Your task to perform on an android device: Open wifi settings Image 0: 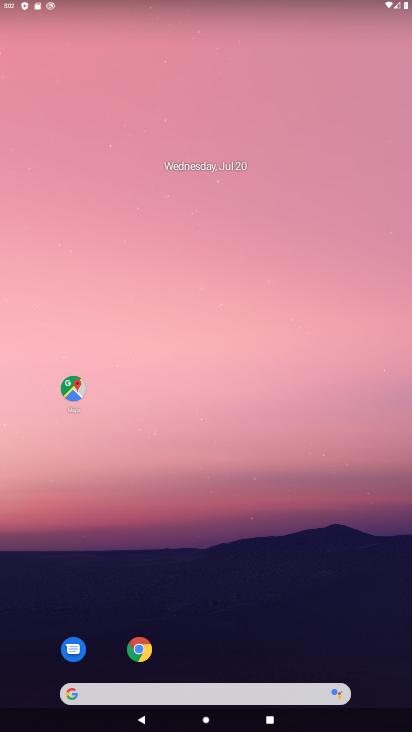
Step 0: drag from (240, 480) to (0, 505)
Your task to perform on an android device: Open wifi settings Image 1: 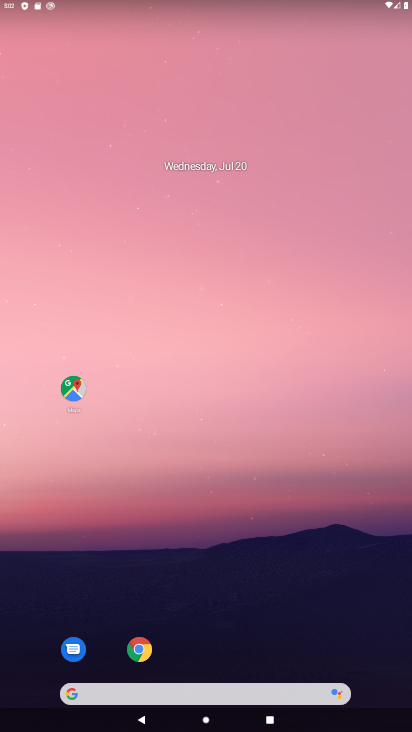
Step 1: drag from (279, 668) to (155, 8)
Your task to perform on an android device: Open wifi settings Image 2: 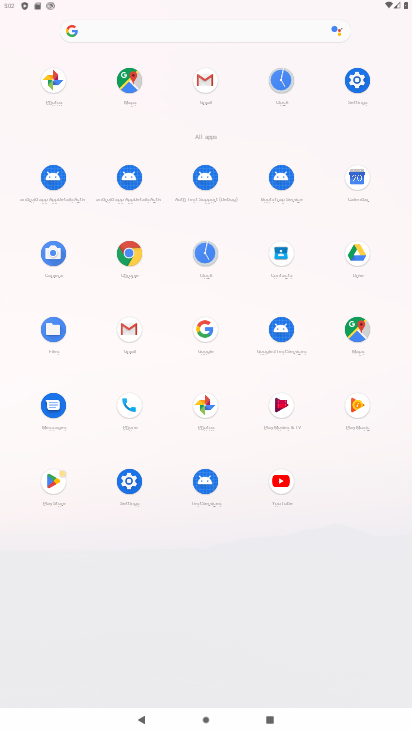
Step 2: click (361, 79)
Your task to perform on an android device: Open wifi settings Image 3: 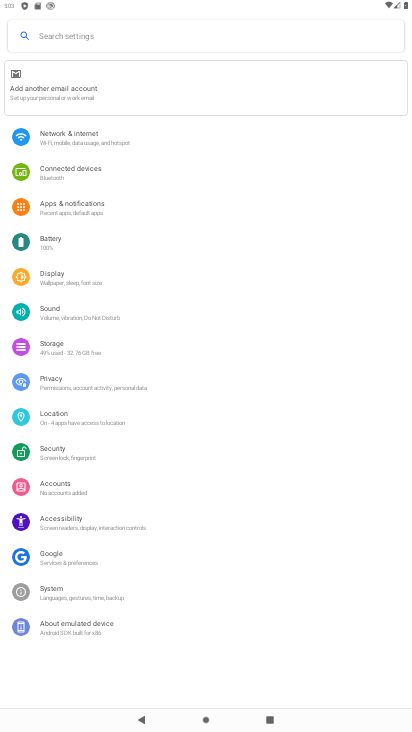
Step 3: click (81, 144)
Your task to perform on an android device: Open wifi settings Image 4: 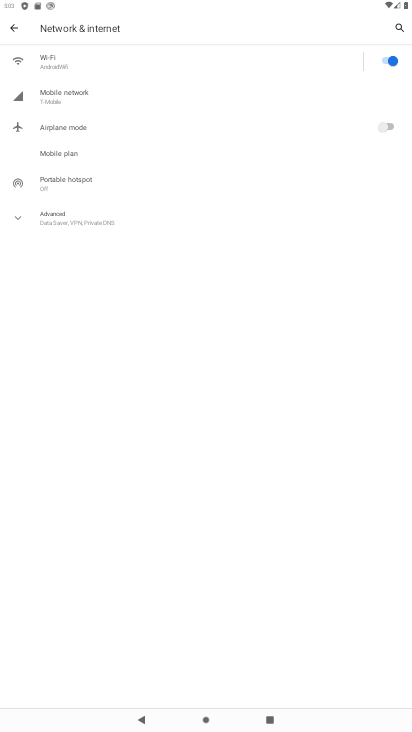
Step 4: task complete